Your task to perform on an android device: open app "PUBG MOBILE" Image 0: 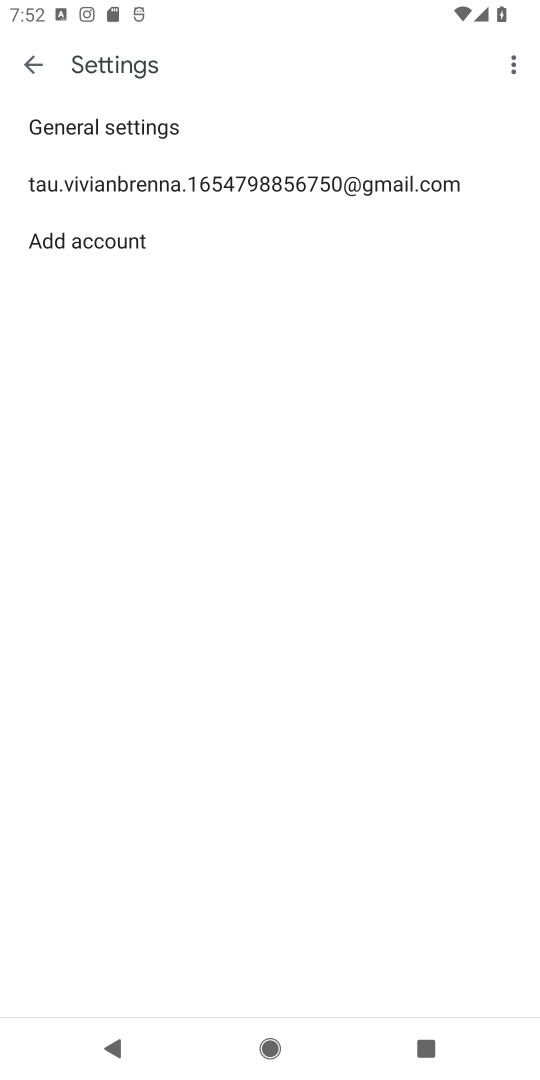
Step 0: press home button
Your task to perform on an android device: open app "PUBG MOBILE" Image 1: 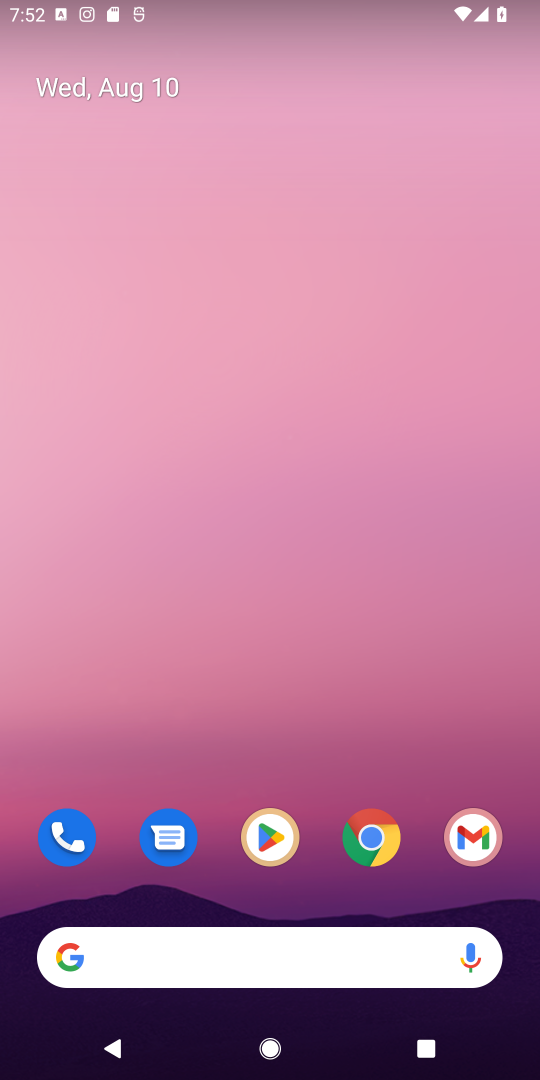
Step 1: click (267, 835)
Your task to perform on an android device: open app "PUBG MOBILE" Image 2: 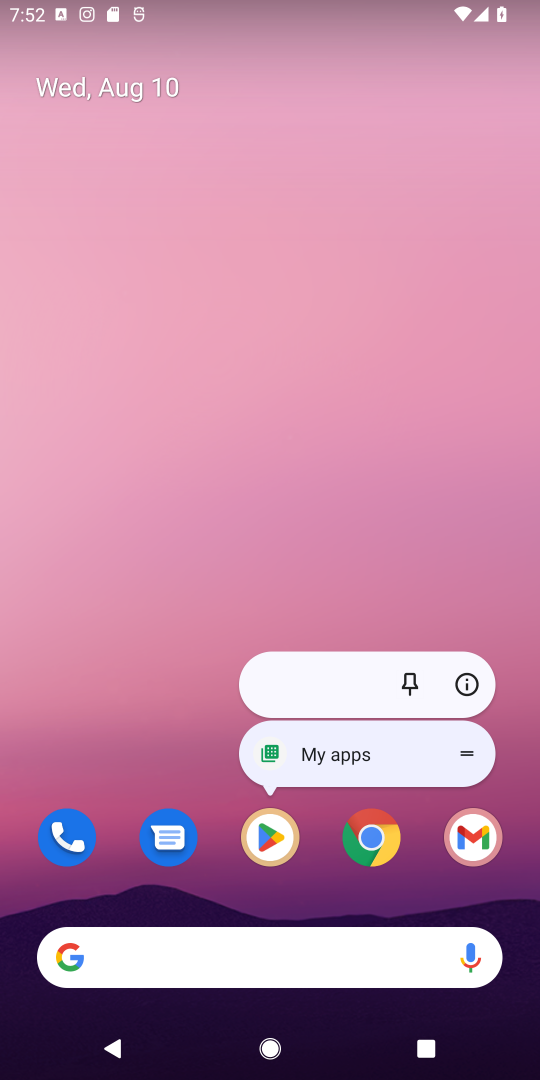
Step 2: click (267, 836)
Your task to perform on an android device: open app "PUBG MOBILE" Image 3: 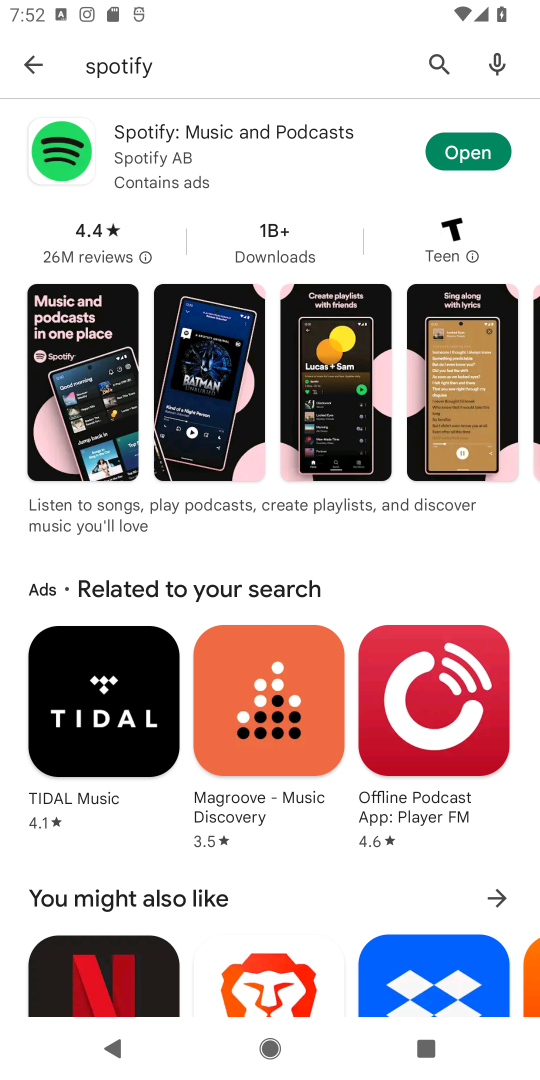
Step 3: click (437, 62)
Your task to perform on an android device: open app "PUBG MOBILE" Image 4: 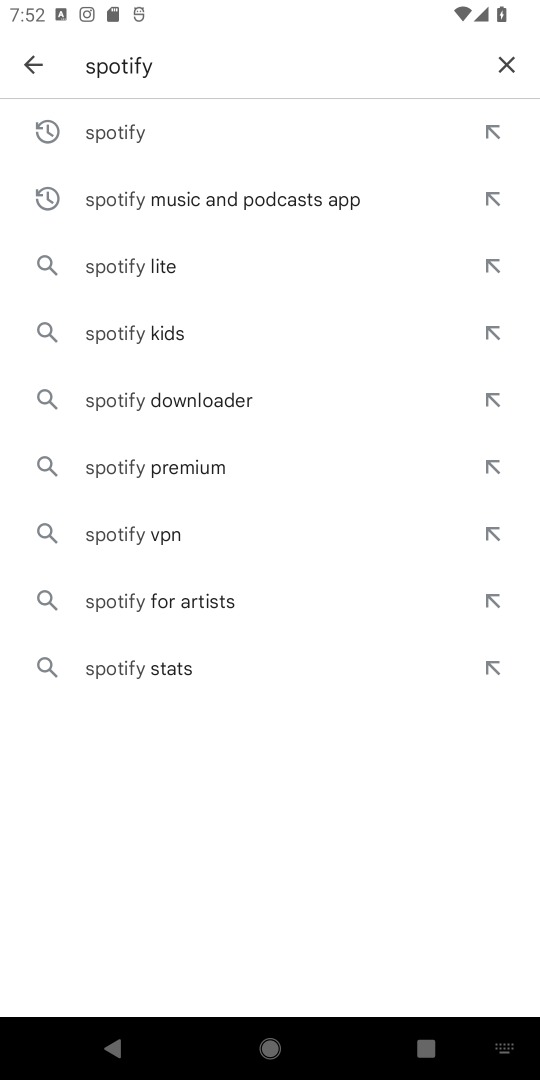
Step 4: click (507, 60)
Your task to perform on an android device: open app "PUBG MOBILE" Image 5: 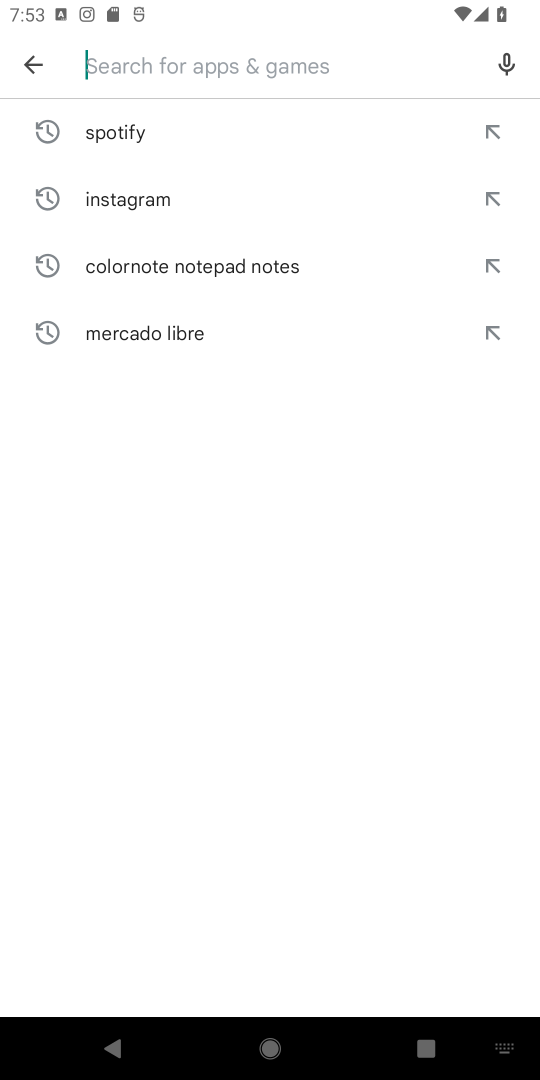
Step 5: type "PUBG MOBILE"
Your task to perform on an android device: open app "PUBG MOBILE" Image 6: 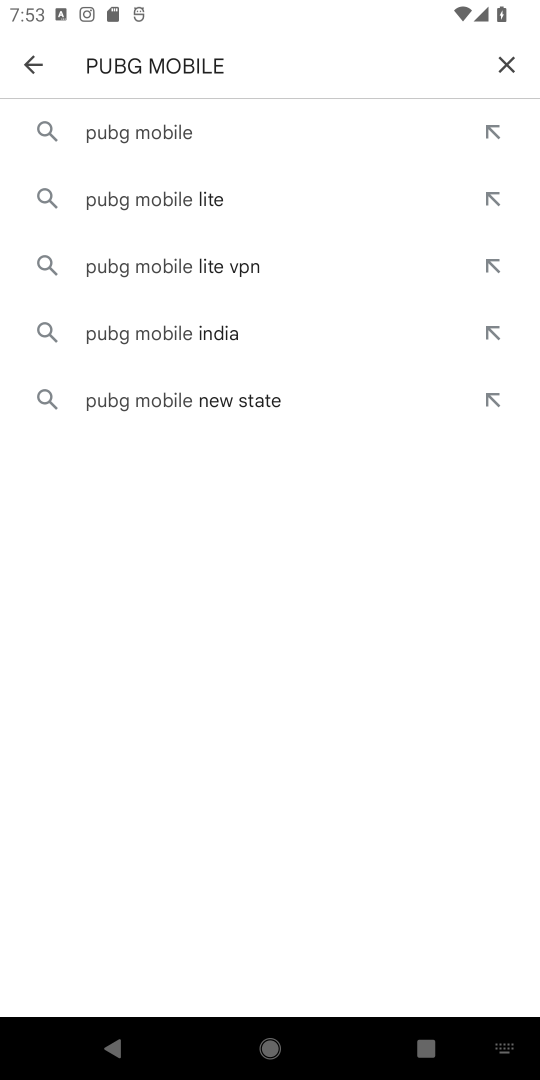
Step 6: click (150, 130)
Your task to perform on an android device: open app "PUBG MOBILE" Image 7: 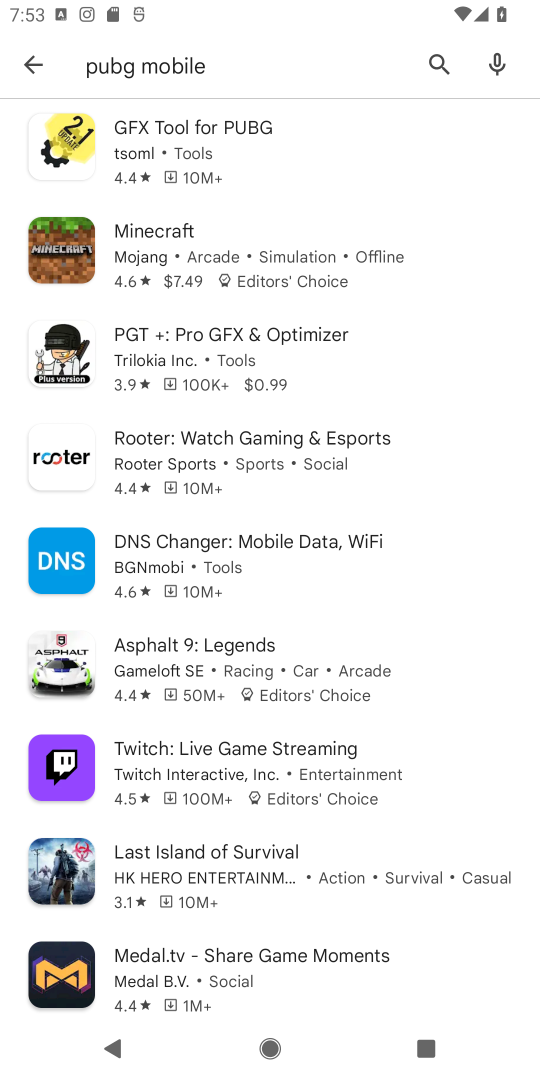
Step 7: task complete